Your task to perform on an android device: Open privacy settings Image 0: 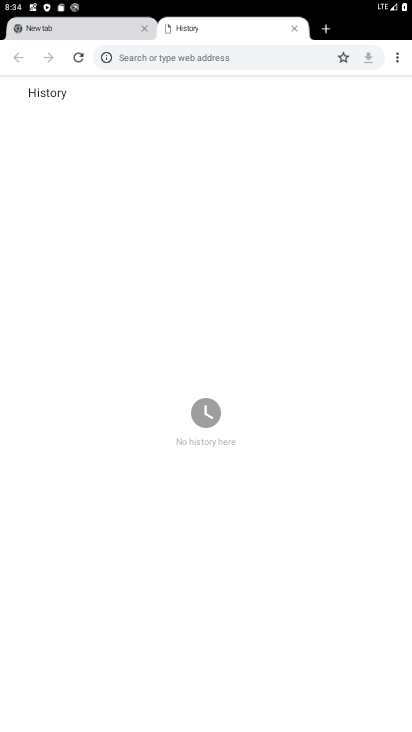
Step 0: press home button
Your task to perform on an android device: Open privacy settings Image 1: 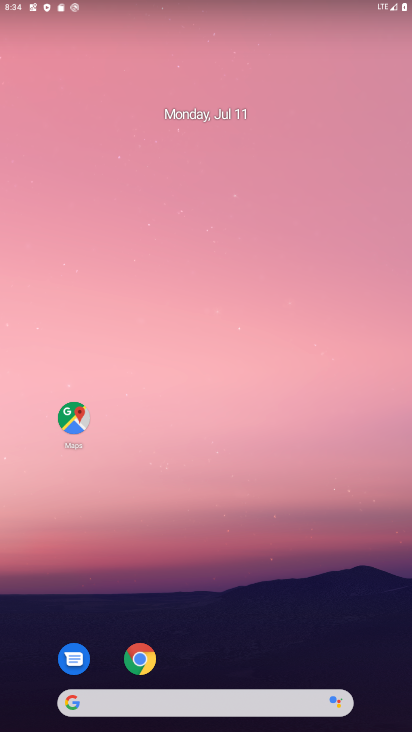
Step 1: drag from (210, 513) to (204, 70)
Your task to perform on an android device: Open privacy settings Image 2: 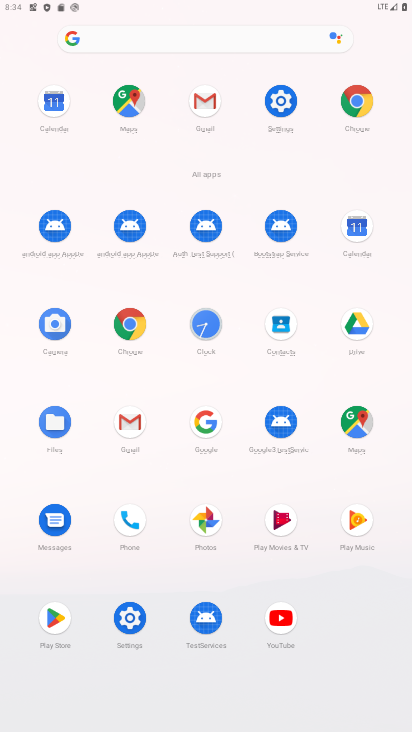
Step 2: click (118, 630)
Your task to perform on an android device: Open privacy settings Image 3: 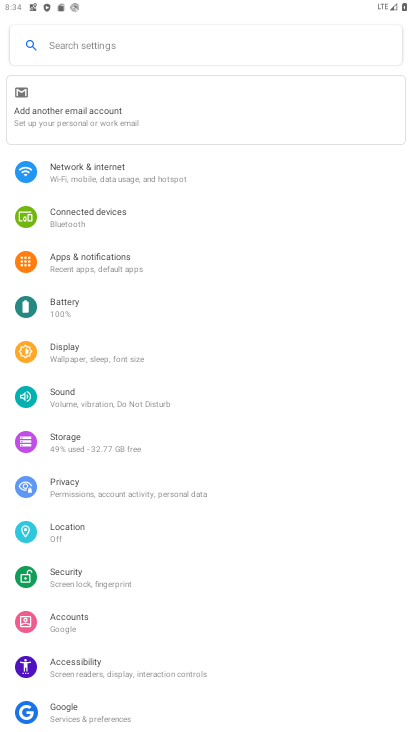
Step 3: click (101, 493)
Your task to perform on an android device: Open privacy settings Image 4: 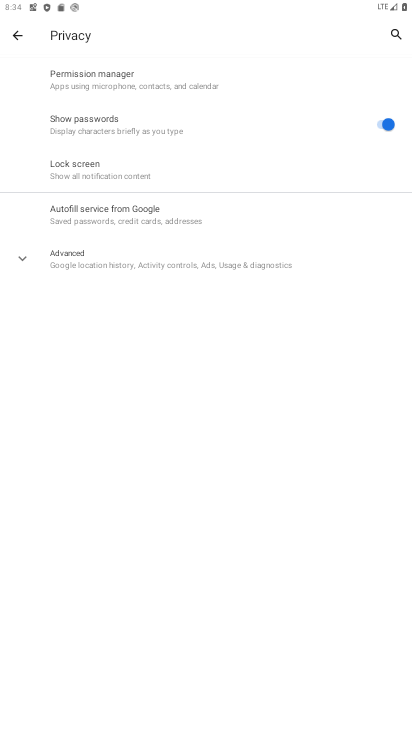
Step 4: task complete